Your task to perform on an android device: change notifications settings Image 0: 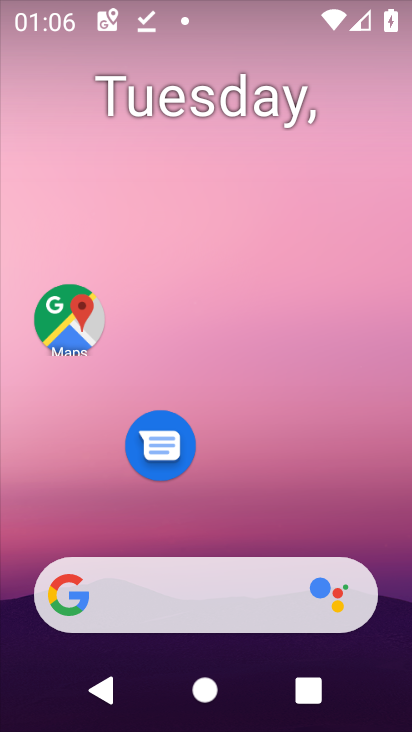
Step 0: drag from (260, 521) to (328, 29)
Your task to perform on an android device: change notifications settings Image 1: 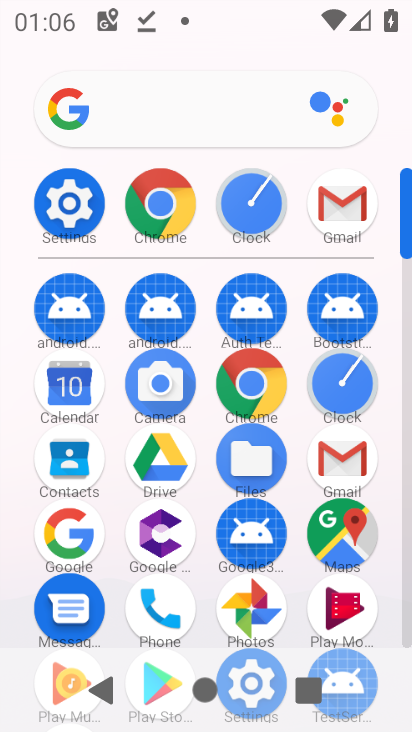
Step 1: click (73, 203)
Your task to perform on an android device: change notifications settings Image 2: 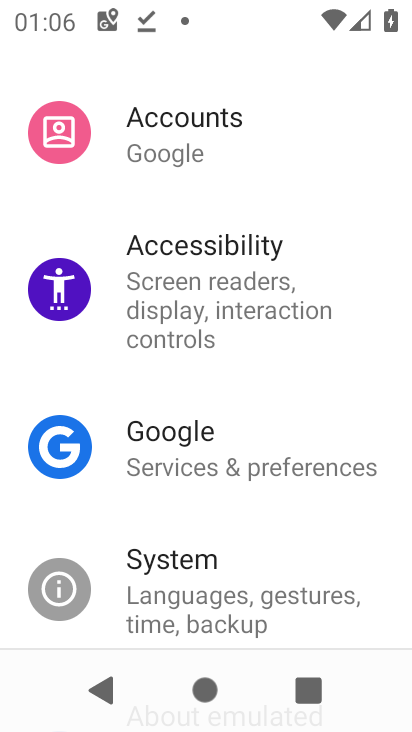
Step 2: drag from (187, 194) to (125, 687)
Your task to perform on an android device: change notifications settings Image 3: 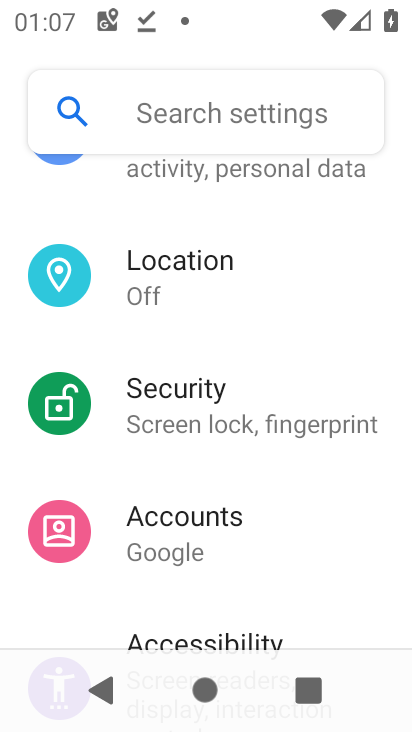
Step 3: drag from (184, 233) to (204, 522)
Your task to perform on an android device: change notifications settings Image 4: 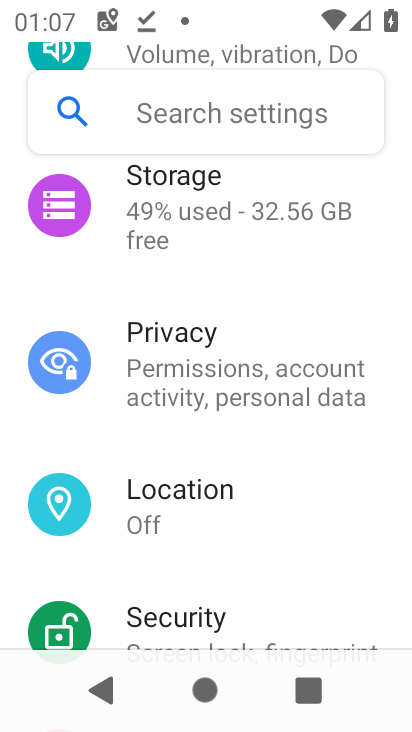
Step 4: drag from (214, 278) to (196, 635)
Your task to perform on an android device: change notifications settings Image 5: 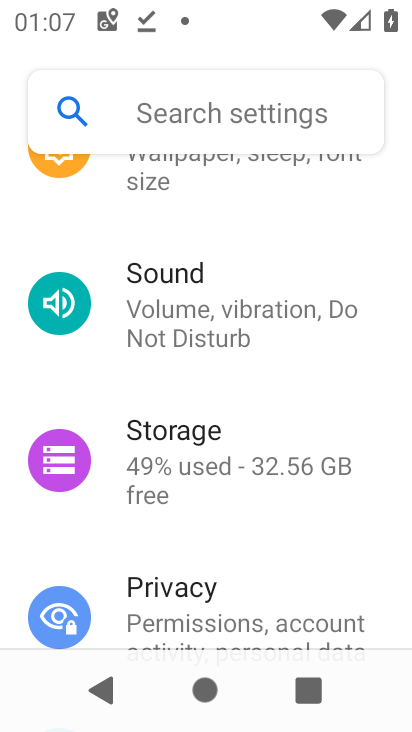
Step 5: drag from (210, 221) to (210, 727)
Your task to perform on an android device: change notifications settings Image 6: 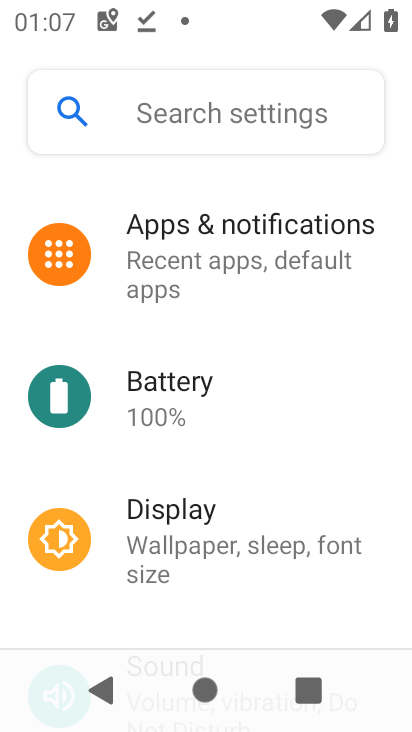
Step 6: click (214, 224)
Your task to perform on an android device: change notifications settings Image 7: 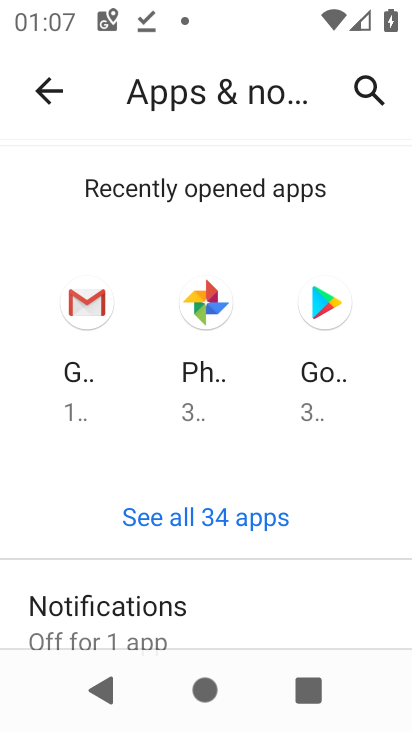
Step 7: click (143, 598)
Your task to perform on an android device: change notifications settings Image 8: 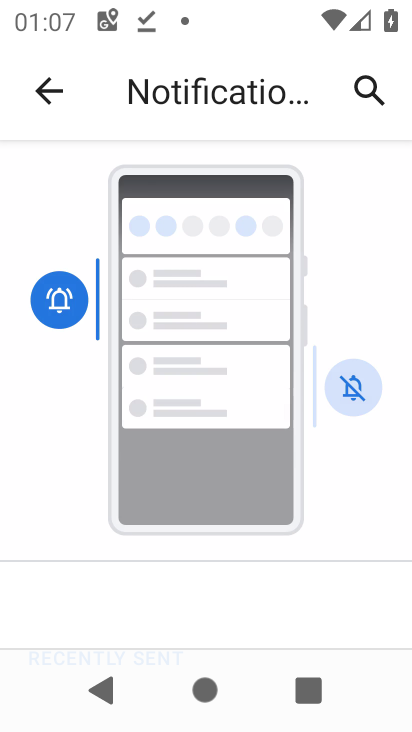
Step 8: drag from (209, 566) to (230, 9)
Your task to perform on an android device: change notifications settings Image 9: 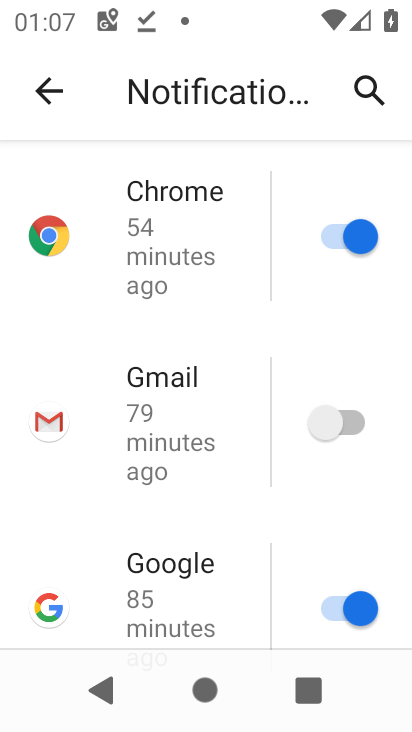
Step 9: drag from (256, 493) to (262, 148)
Your task to perform on an android device: change notifications settings Image 10: 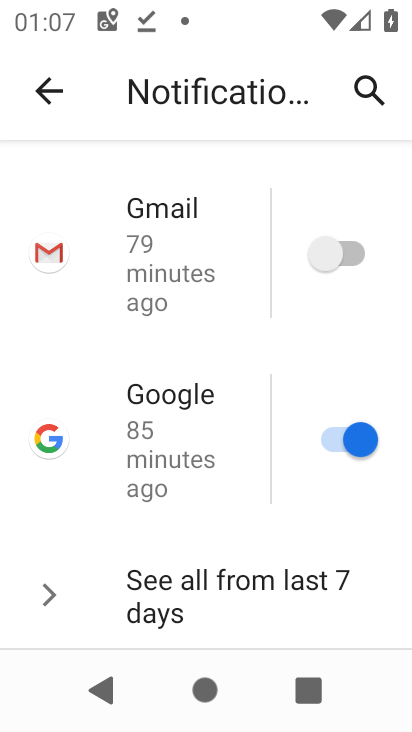
Step 10: click (153, 595)
Your task to perform on an android device: change notifications settings Image 11: 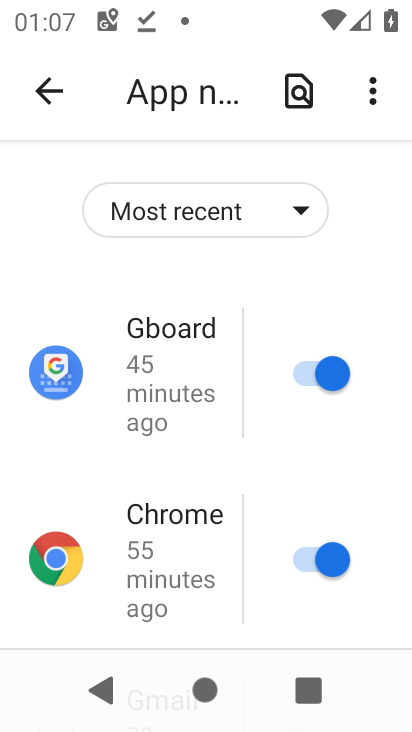
Step 11: drag from (233, 441) to (250, 44)
Your task to perform on an android device: change notifications settings Image 12: 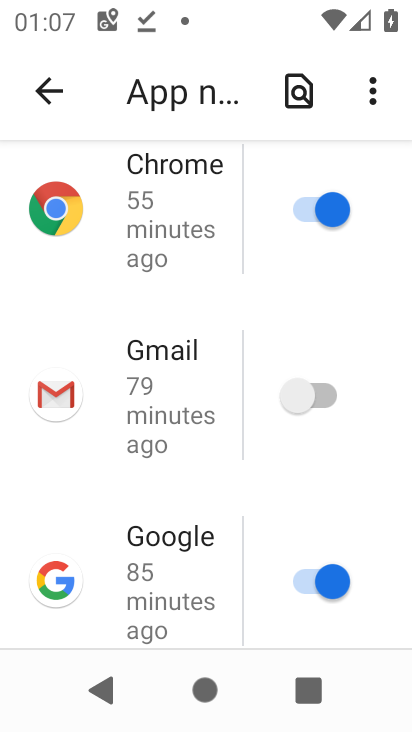
Step 12: click (318, 231)
Your task to perform on an android device: change notifications settings Image 13: 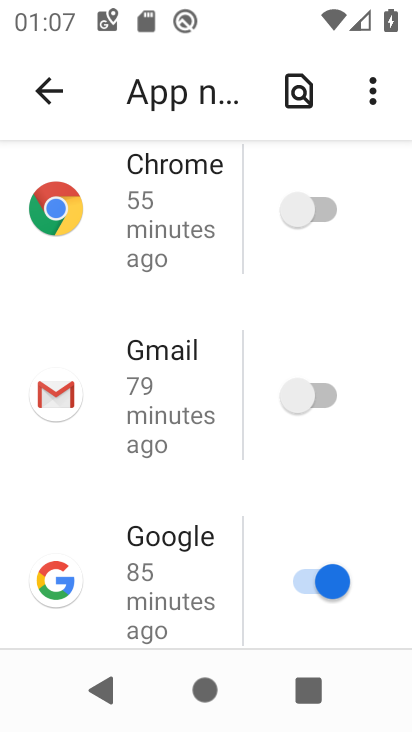
Step 13: click (320, 583)
Your task to perform on an android device: change notifications settings Image 14: 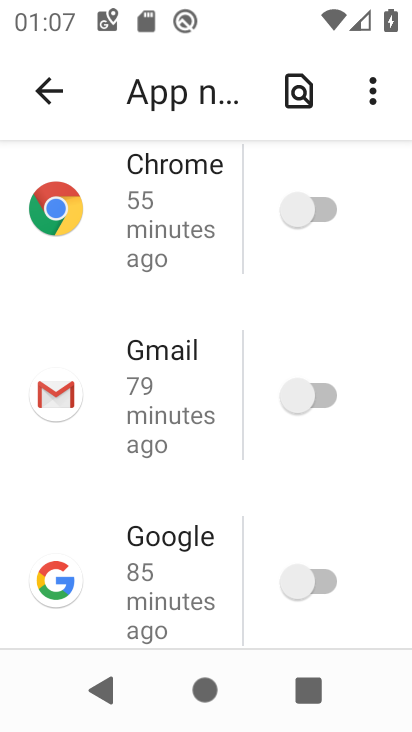
Step 14: drag from (235, 511) to (235, 55)
Your task to perform on an android device: change notifications settings Image 15: 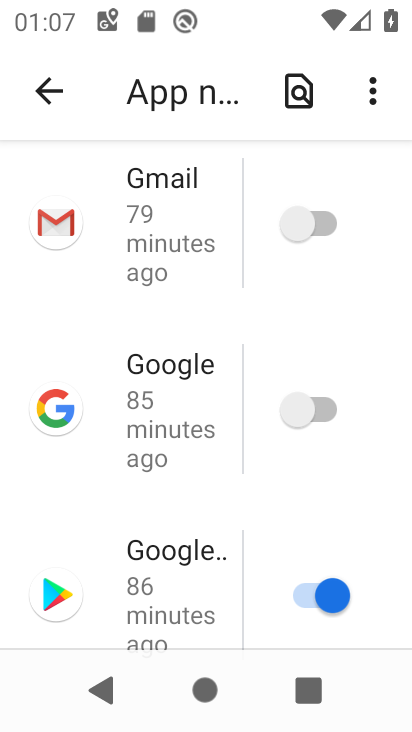
Step 15: click (317, 588)
Your task to perform on an android device: change notifications settings Image 16: 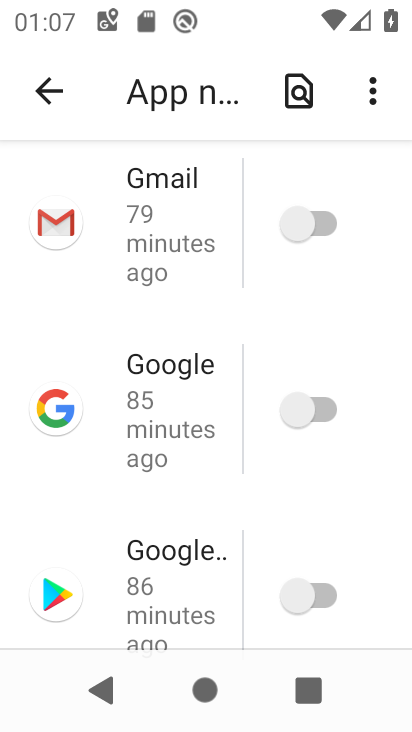
Step 16: drag from (246, 566) to (252, 104)
Your task to perform on an android device: change notifications settings Image 17: 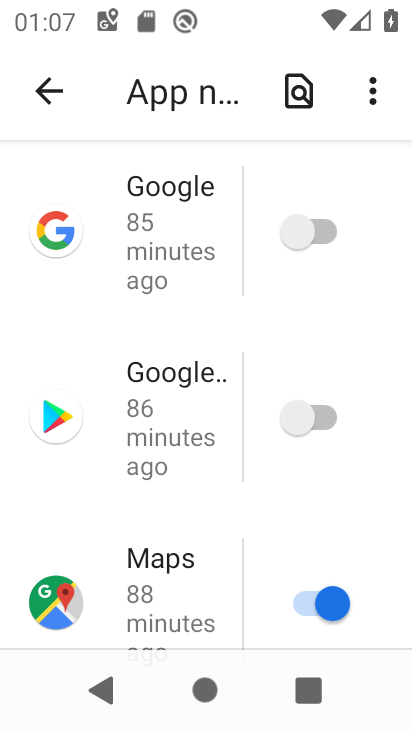
Step 17: drag from (188, 536) to (227, 247)
Your task to perform on an android device: change notifications settings Image 18: 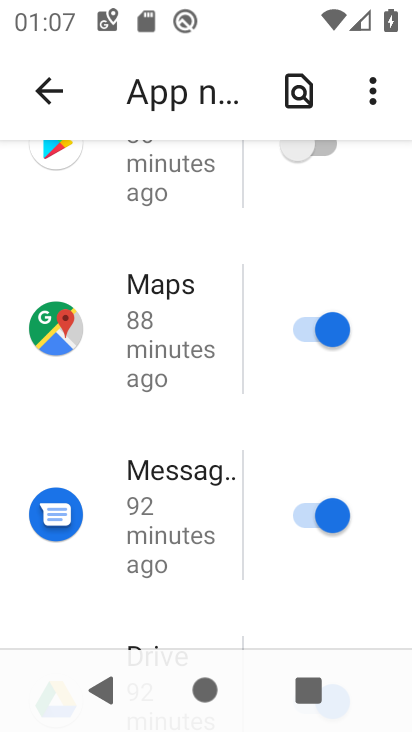
Step 18: click (338, 338)
Your task to perform on an android device: change notifications settings Image 19: 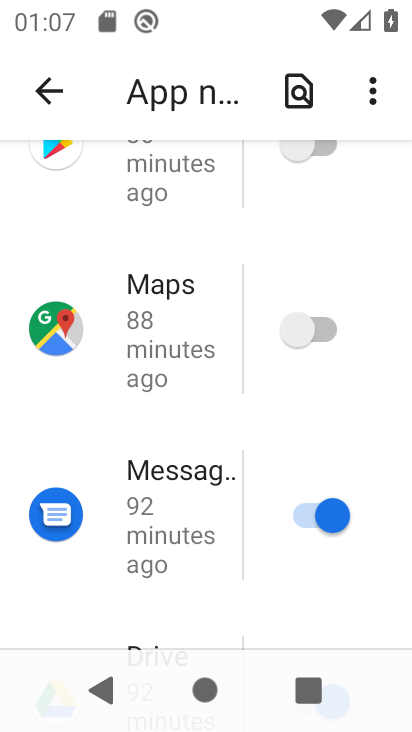
Step 19: click (326, 517)
Your task to perform on an android device: change notifications settings Image 20: 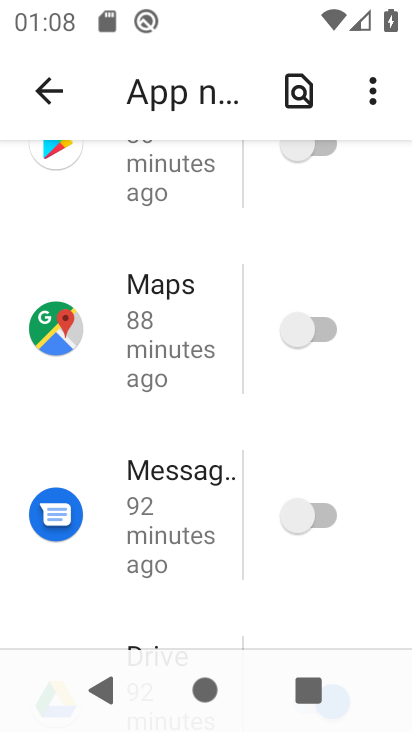
Step 20: drag from (181, 410) to (180, 27)
Your task to perform on an android device: change notifications settings Image 21: 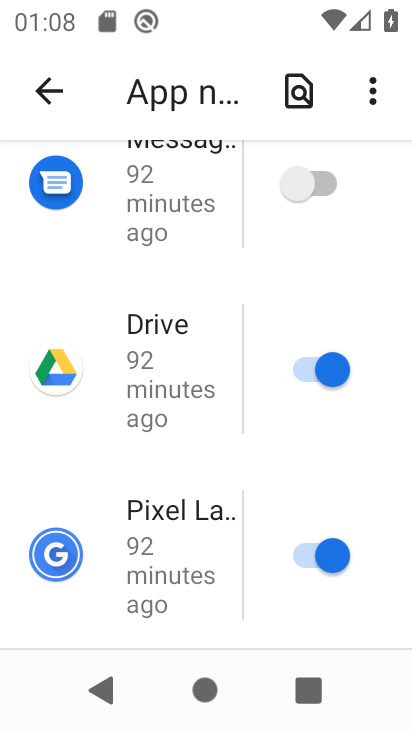
Step 21: click (326, 364)
Your task to perform on an android device: change notifications settings Image 22: 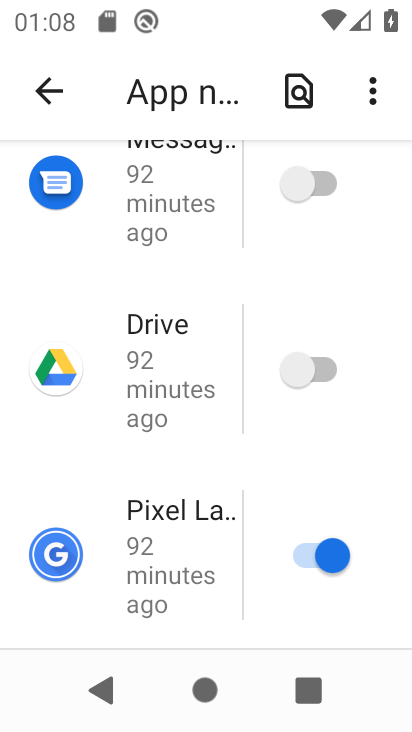
Step 22: click (330, 564)
Your task to perform on an android device: change notifications settings Image 23: 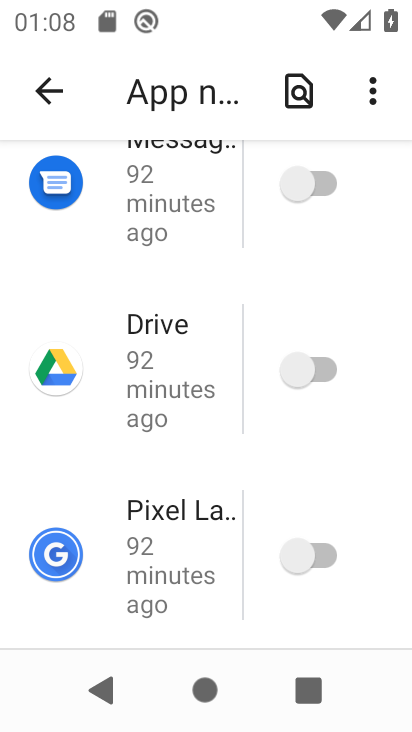
Step 23: task complete